Your task to perform on an android device: Find coffee shops on Maps Image 0: 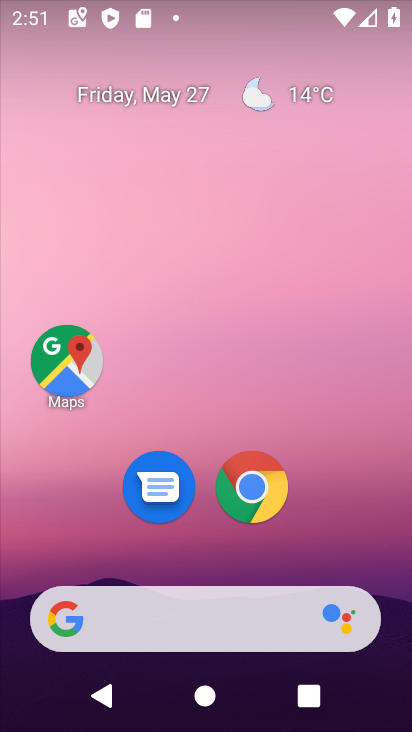
Step 0: click (55, 375)
Your task to perform on an android device: Find coffee shops on Maps Image 1: 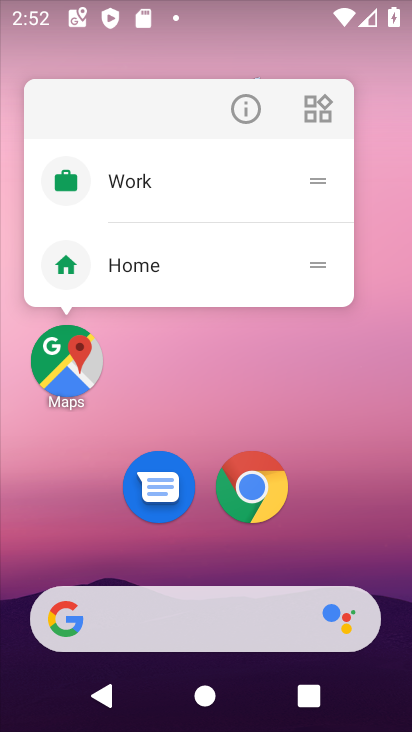
Step 1: click (55, 375)
Your task to perform on an android device: Find coffee shops on Maps Image 2: 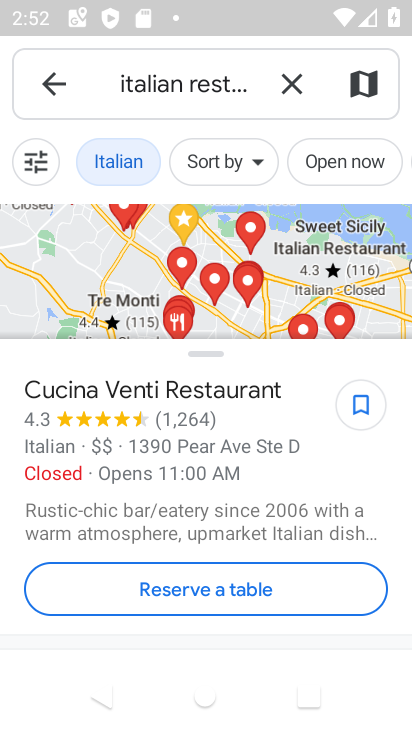
Step 2: click (293, 82)
Your task to perform on an android device: Find coffee shops on Maps Image 3: 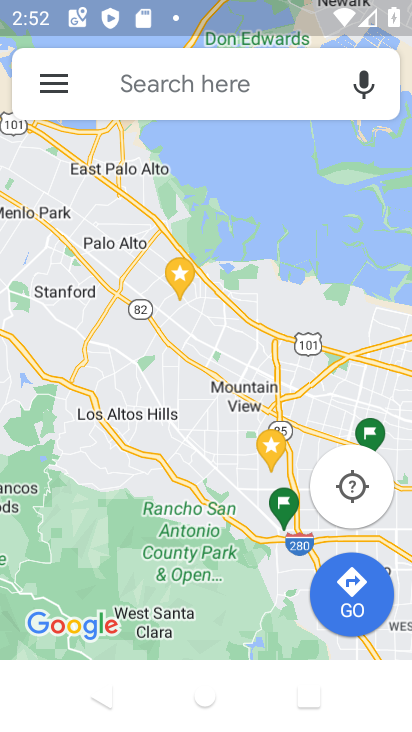
Step 3: click (184, 107)
Your task to perform on an android device: Find coffee shops on Maps Image 4: 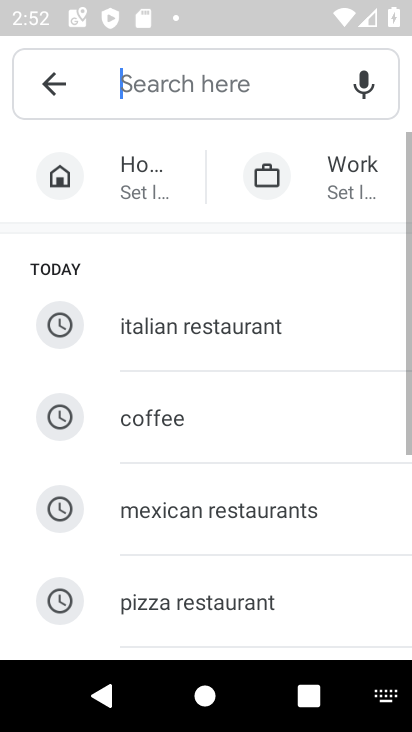
Step 4: click (182, 95)
Your task to perform on an android device: Find coffee shops on Maps Image 5: 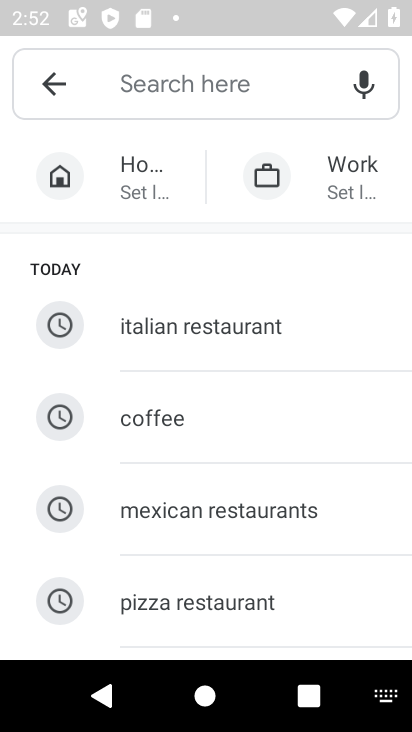
Step 5: type "coffee shops "
Your task to perform on an android device: Find coffee shops on Maps Image 6: 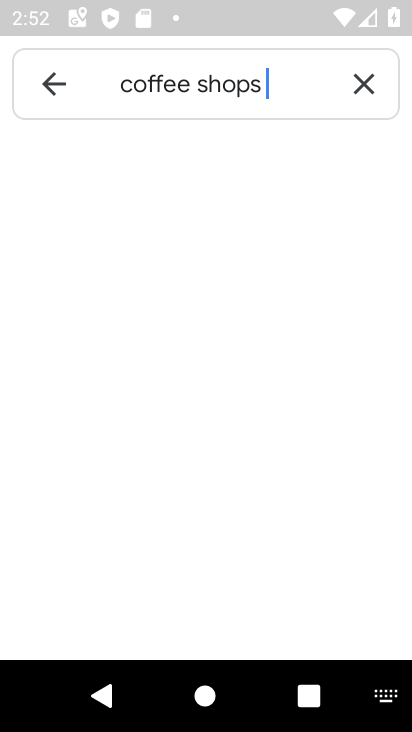
Step 6: type ""
Your task to perform on an android device: Find coffee shops on Maps Image 7: 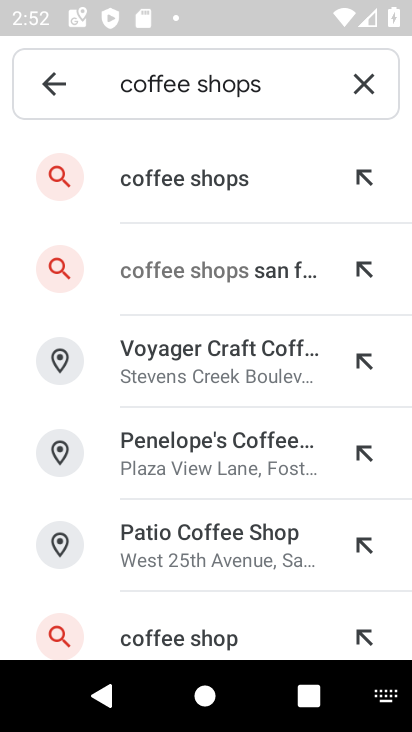
Step 7: click (225, 192)
Your task to perform on an android device: Find coffee shops on Maps Image 8: 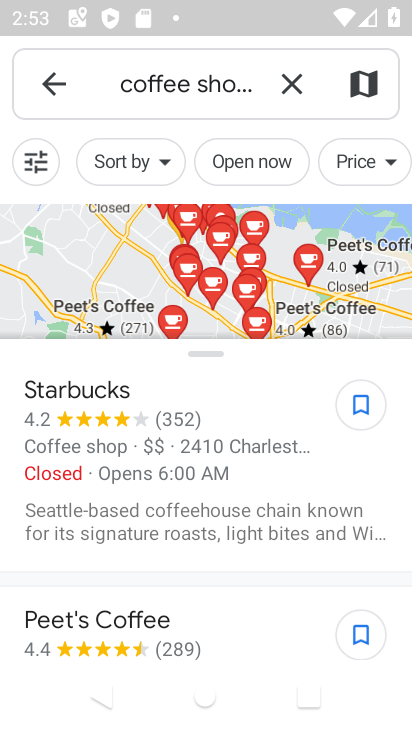
Step 8: task complete